Your task to perform on an android device: toggle show notifications on the lock screen Image 0: 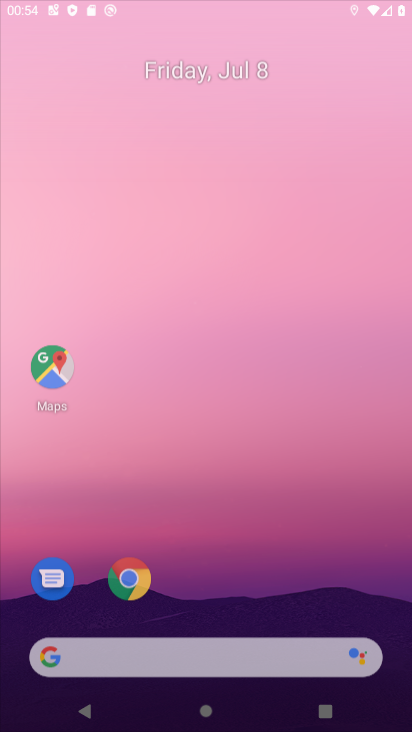
Step 0: click (259, 190)
Your task to perform on an android device: toggle show notifications on the lock screen Image 1: 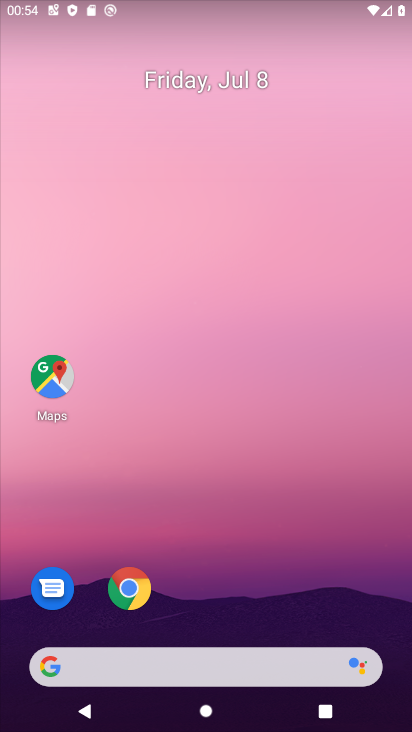
Step 1: drag from (196, 604) to (212, 158)
Your task to perform on an android device: toggle show notifications on the lock screen Image 2: 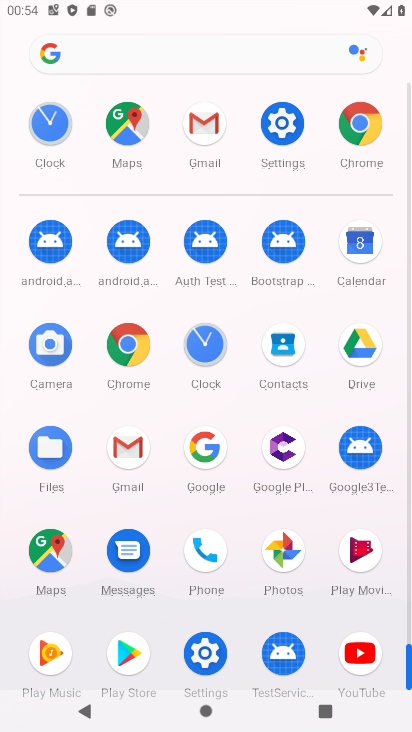
Step 2: click (281, 114)
Your task to perform on an android device: toggle show notifications on the lock screen Image 3: 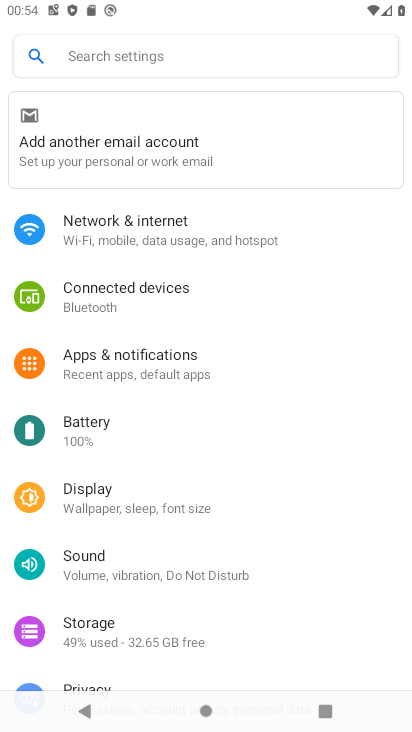
Step 3: click (74, 374)
Your task to perform on an android device: toggle show notifications on the lock screen Image 4: 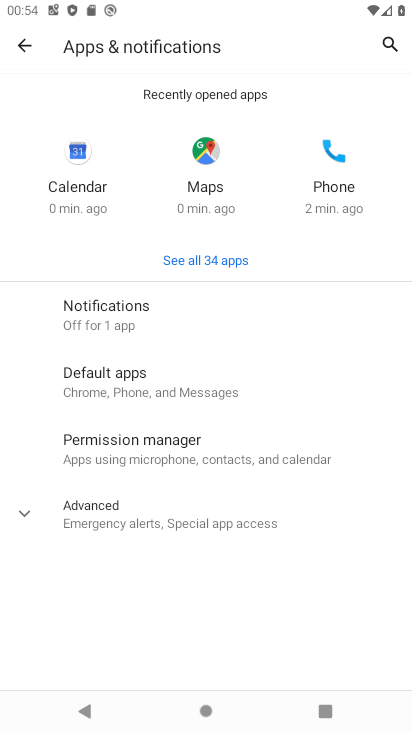
Step 4: click (96, 319)
Your task to perform on an android device: toggle show notifications on the lock screen Image 5: 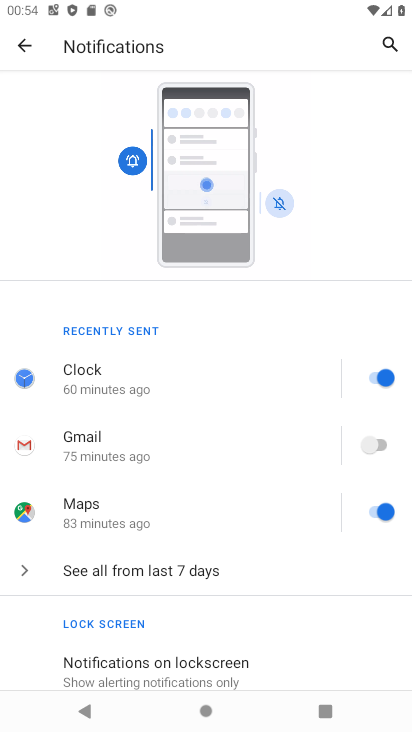
Step 5: drag from (218, 586) to (277, 169)
Your task to perform on an android device: toggle show notifications on the lock screen Image 6: 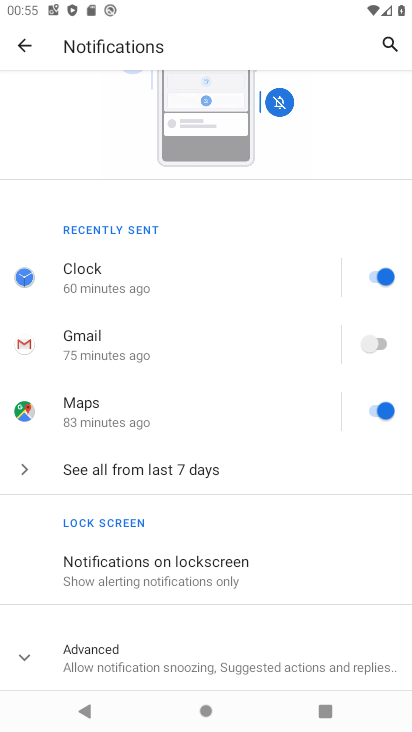
Step 6: drag from (182, 631) to (243, 261)
Your task to perform on an android device: toggle show notifications on the lock screen Image 7: 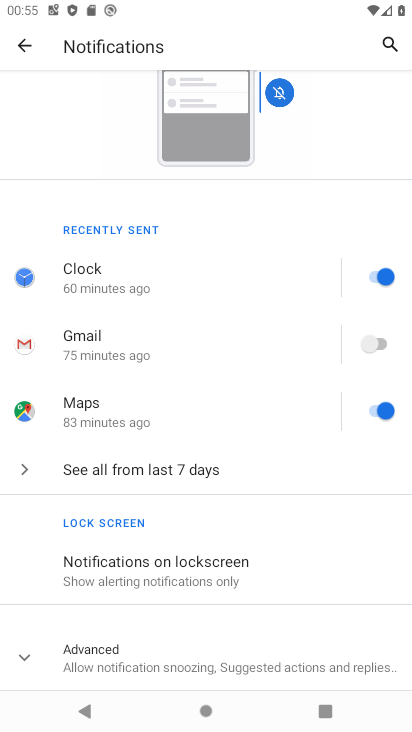
Step 7: click (158, 569)
Your task to perform on an android device: toggle show notifications on the lock screen Image 8: 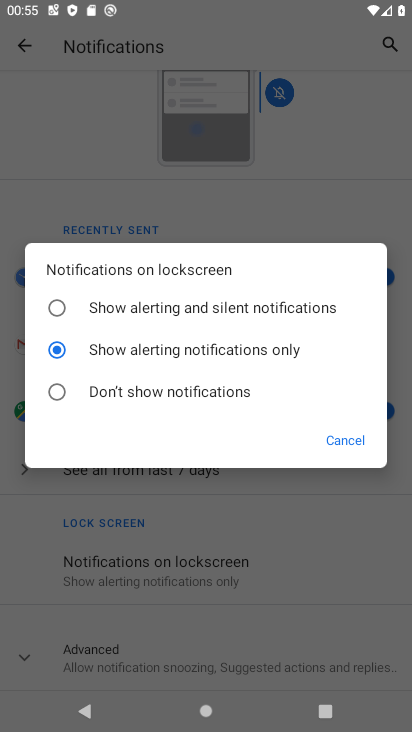
Step 8: drag from (184, 553) to (241, 237)
Your task to perform on an android device: toggle show notifications on the lock screen Image 9: 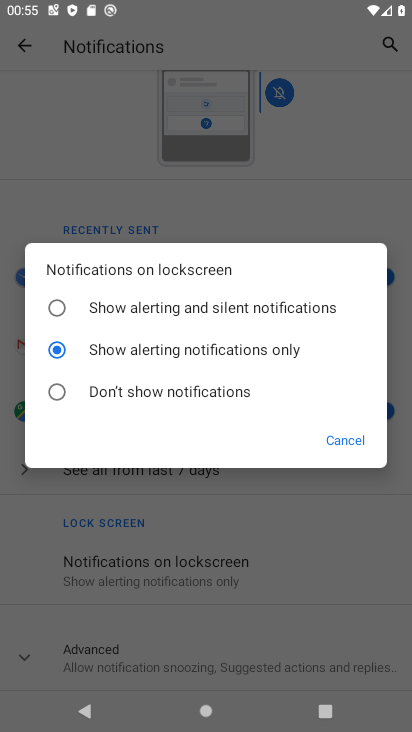
Step 9: drag from (158, 354) to (208, 201)
Your task to perform on an android device: toggle show notifications on the lock screen Image 10: 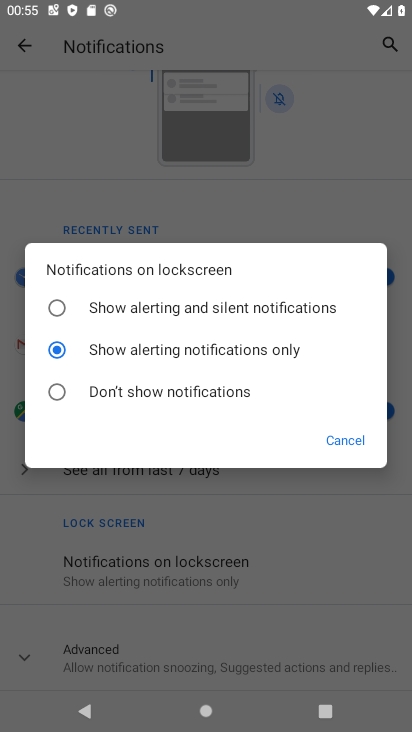
Step 10: drag from (132, 358) to (169, 211)
Your task to perform on an android device: toggle show notifications on the lock screen Image 11: 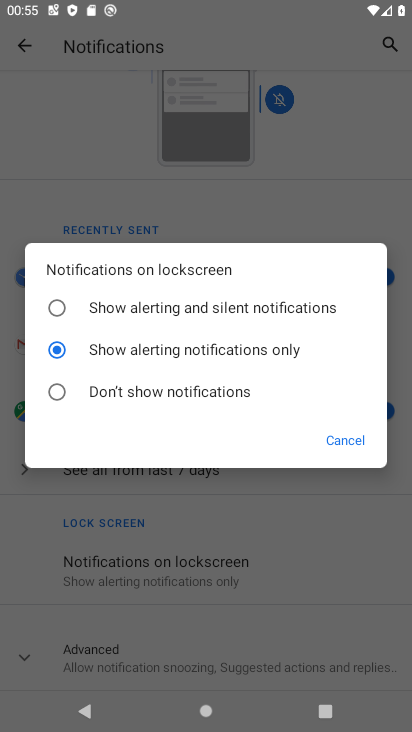
Step 11: click (175, 350)
Your task to perform on an android device: toggle show notifications on the lock screen Image 12: 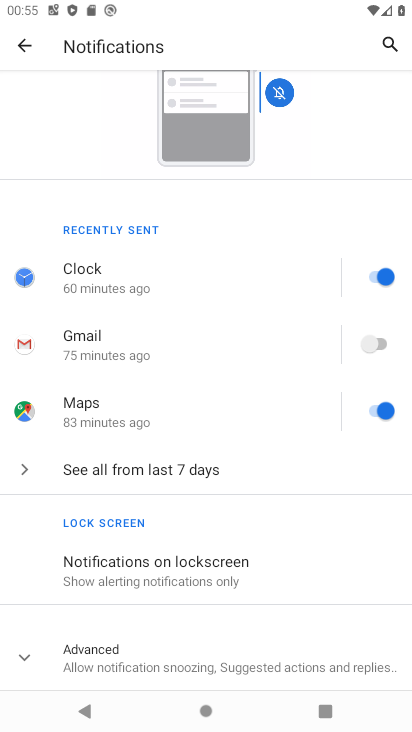
Step 12: task complete